Your task to perform on an android device: What's the weather going to be this weekend? Image 0: 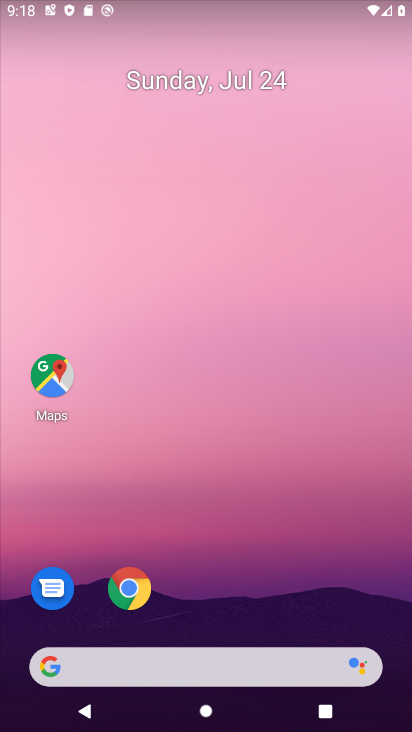
Step 0: click (98, 672)
Your task to perform on an android device: What's the weather going to be this weekend? Image 1: 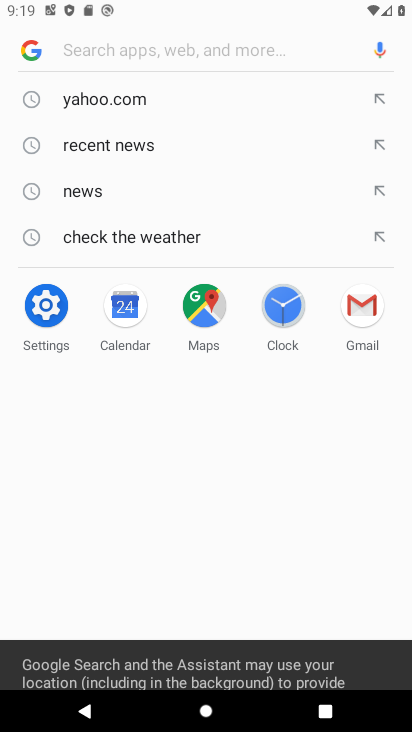
Step 1: click (79, 57)
Your task to perform on an android device: What's the weather going to be this weekend? Image 2: 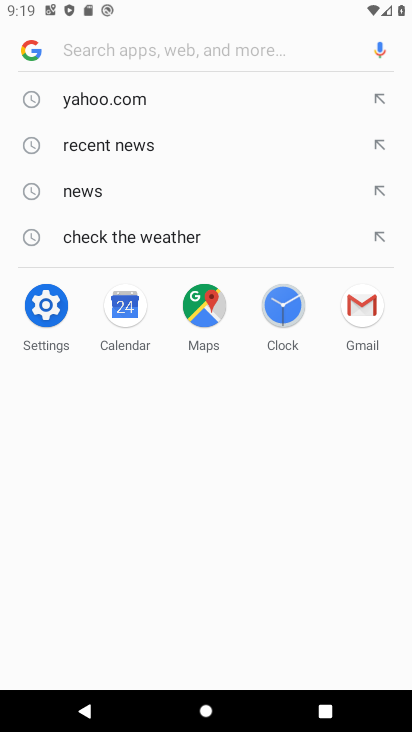
Step 2: type "What's the weather going to be this weekend?"
Your task to perform on an android device: What's the weather going to be this weekend? Image 3: 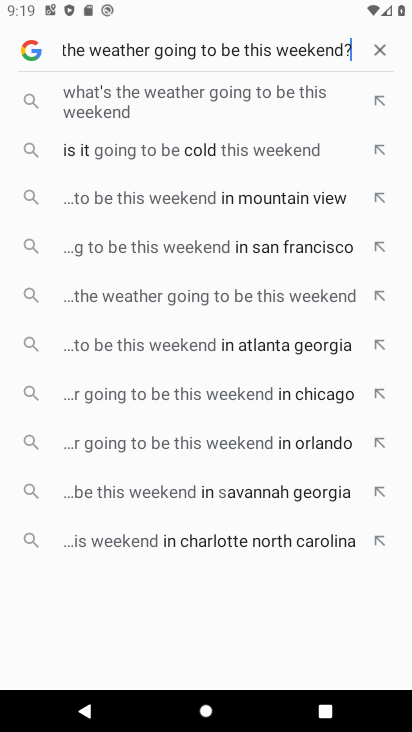
Step 3: click (99, 114)
Your task to perform on an android device: What's the weather going to be this weekend? Image 4: 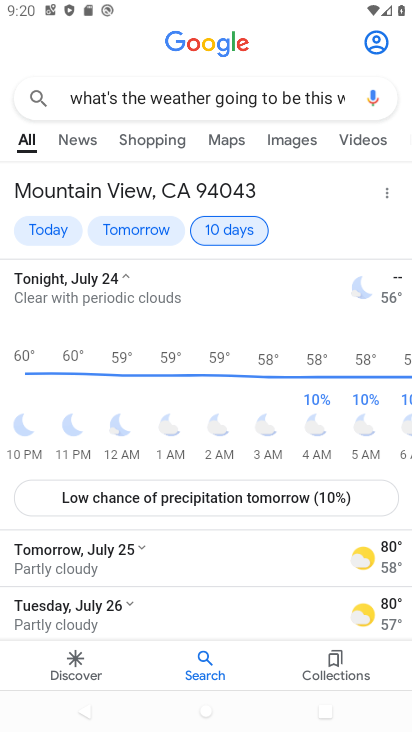
Step 4: task complete